Your task to perform on an android device: change the clock display to show seconds Image 0: 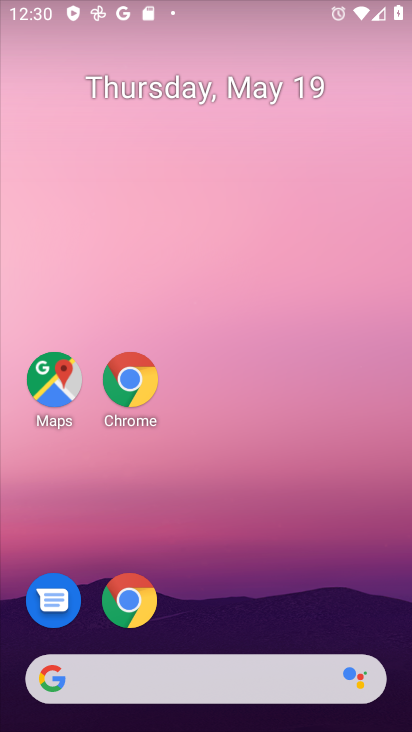
Step 0: drag from (202, 192) to (169, 111)
Your task to perform on an android device: change the clock display to show seconds Image 1: 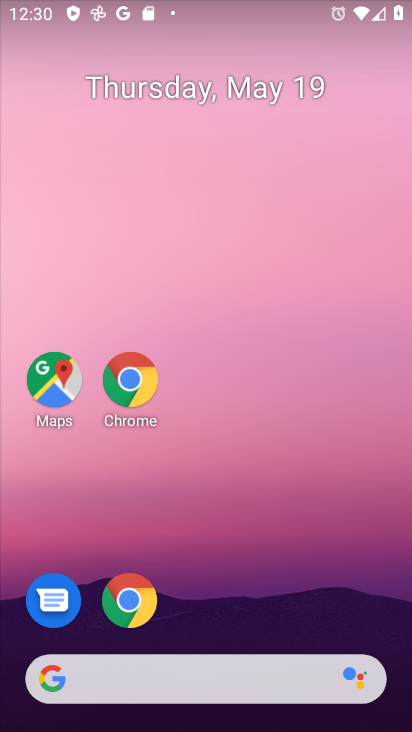
Step 1: drag from (280, 585) to (165, 34)
Your task to perform on an android device: change the clock display to show seconds Image 2: 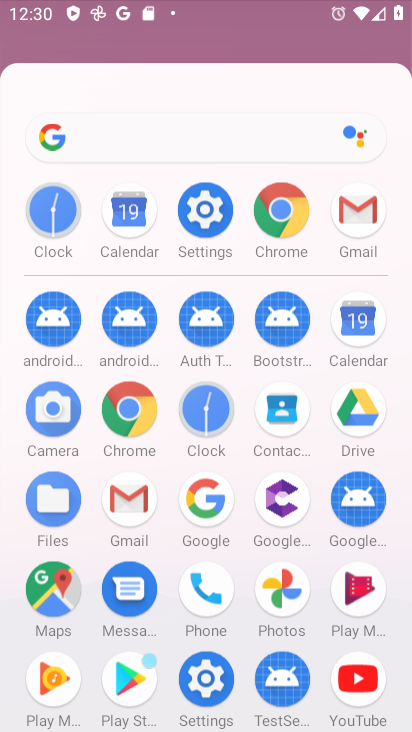
Step 2: drag from (252, 443) to (166, 2)
Your task to perform on an android device: change the clock display to show seconds Image 3: 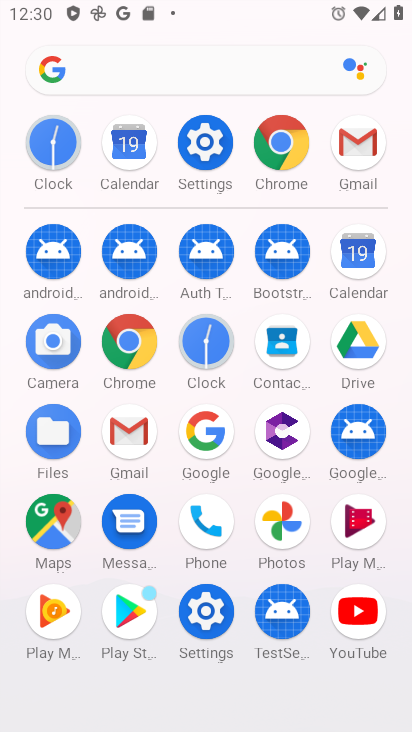
Step 3: click (207, 336)
Your task to perform on an android device: change the clock display to show seconds Image 4: 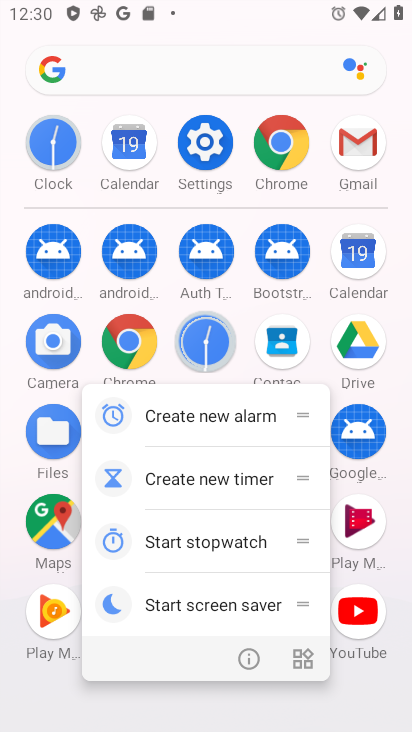
Step 4: click (210, 337)
Your task to perform on an android device: change the clock display to show seconds Image 5: 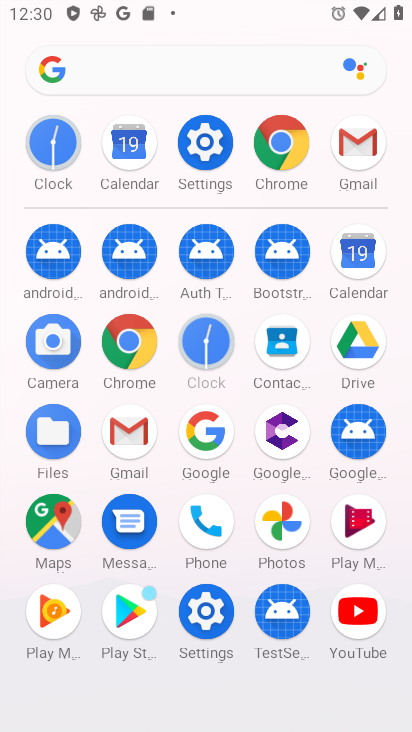
Step 5: click (197, 330)
Your task to perform on an android device: change the clock display to show seconds Image 6: 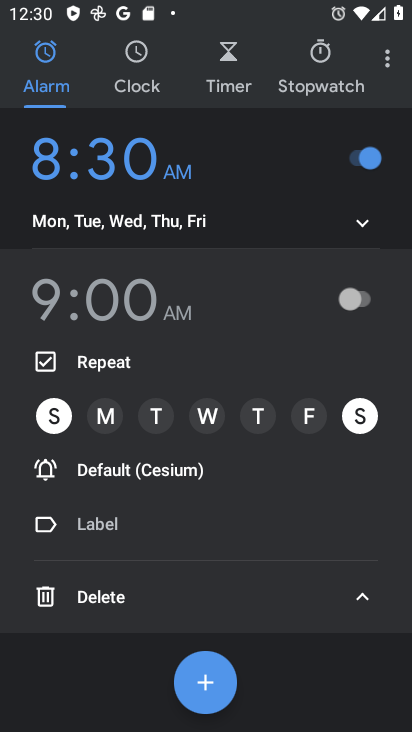
Step 6: click (199, 333)
Your task to perform on an android device: change the clock display to show seconds Image 7: 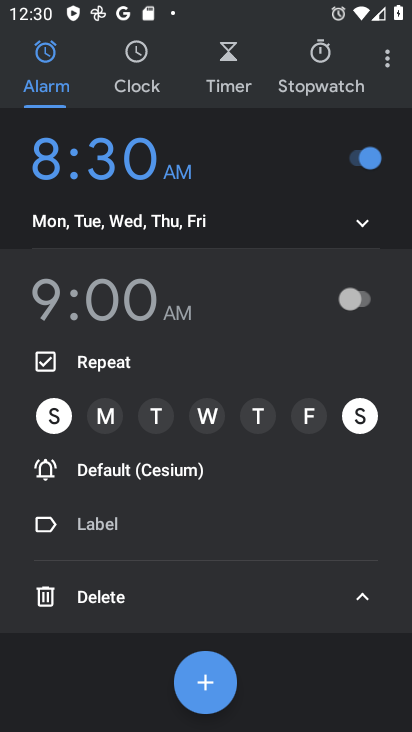
Step 7: click (216, 334)
Your task to perform on an android device: change the clock display to show seconds Image 8: 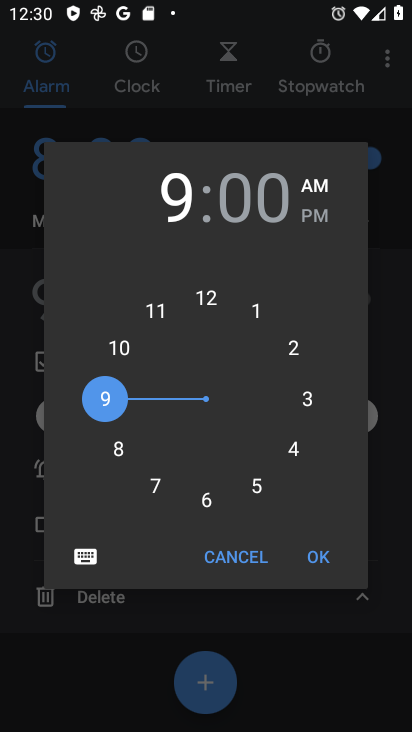
Step 8: click (236, 553)
Your task to perform on an android device: change the clock display to show seconds Image 9: 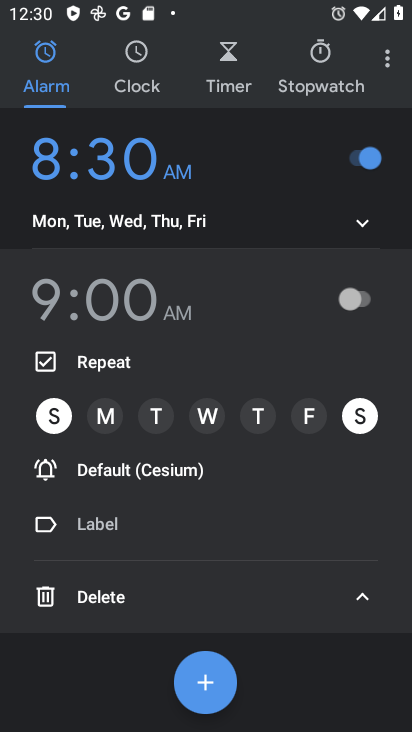
Step 9: click (389, 65)
Your task to perform on an android device: change the clock display to show seconds Image 10: 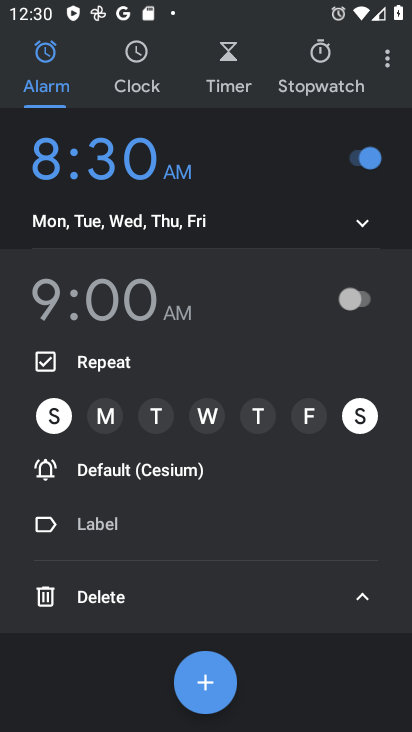
Step 10: click (389, 58)
Your task to perform on an android device: change the clock display to show seconds Image 11: 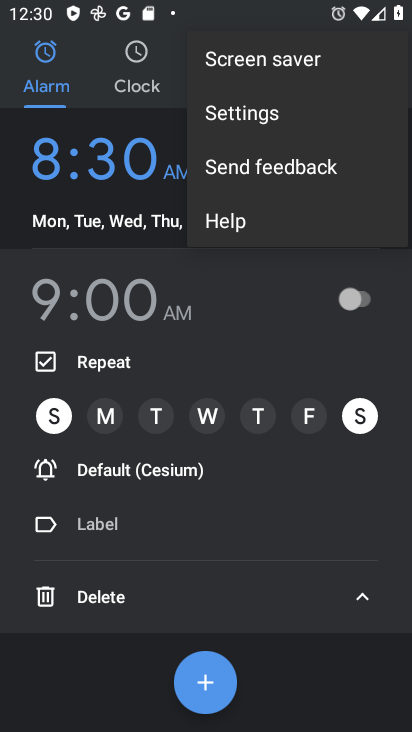
Step 11: click (267, 115)
Your task to perform on an android device: change the clock display to show seconds Image 12: 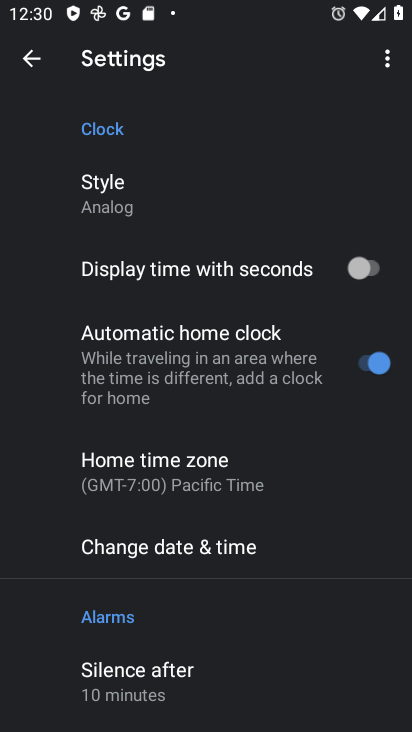
Step 12: click (359, 272)
Your task to perform on an android device: change the clock display to show seconds Image 13: 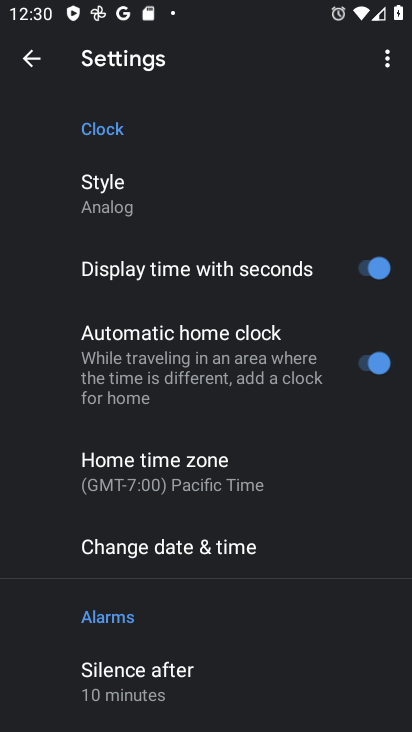
Step 13: task complete